Your task to perform on an android device: change the clock style Image 0: 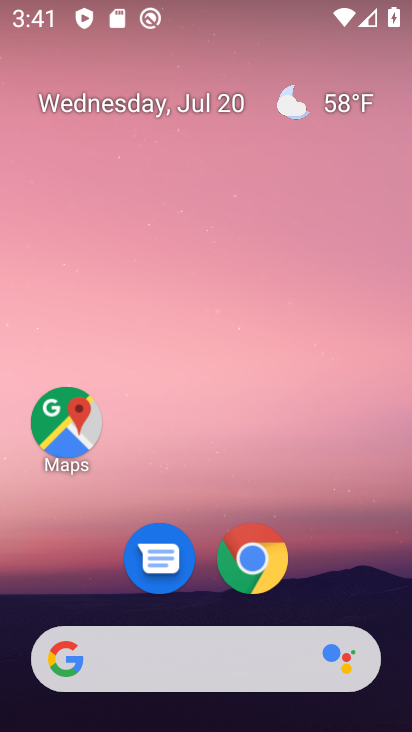
Step 0: drag from (88, 483) to (237, 86)
Your task to perform on an android device: change the clock style Image 1: 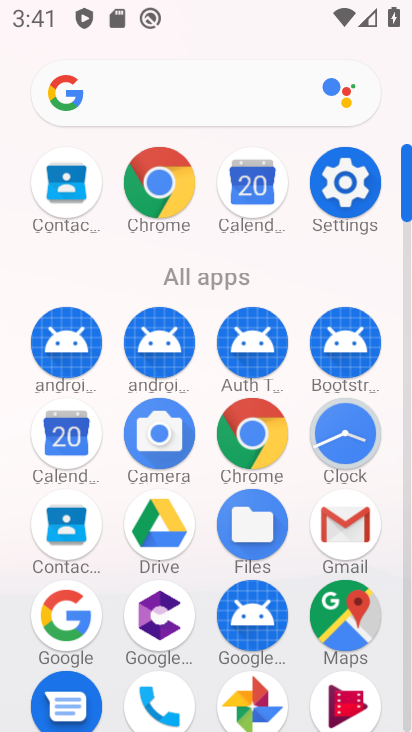
Step 1: click (342, 447)
Your task to perform on an android device: change the clock style Image 2: 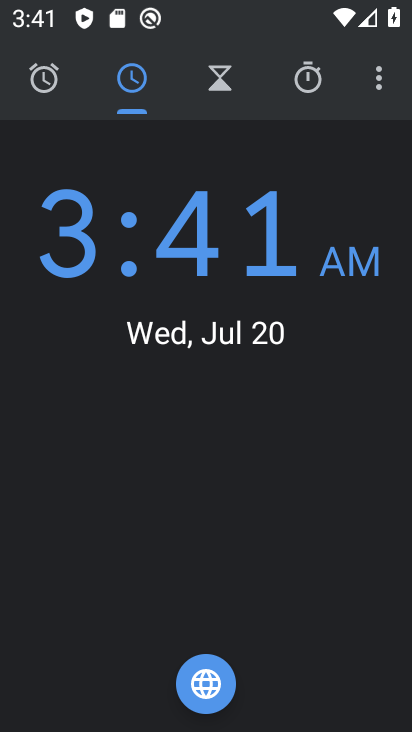
Step 2: click (382, 73)
Your task to perform on an android device: change the clock style Image 3: 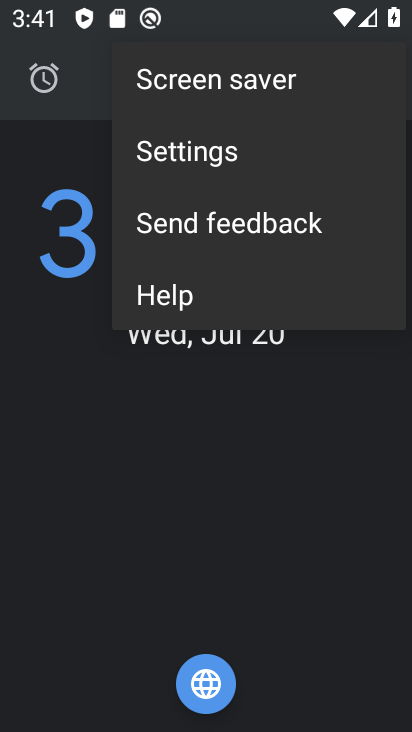
Step 3: click (238, 149)
Your task to perform on an android device: change the clock style Image 4: 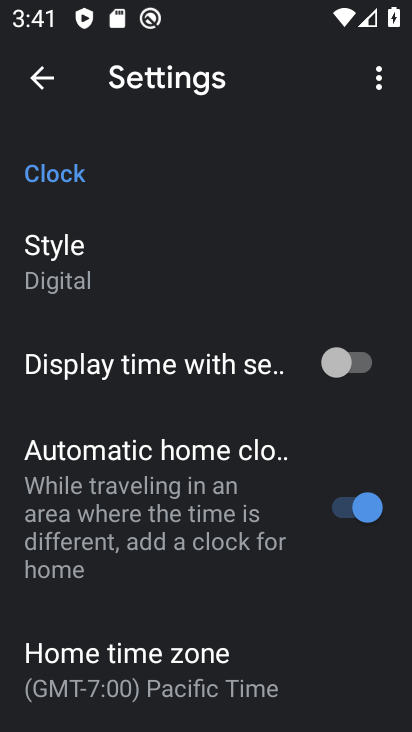
Step 4: click (117, 265)
Your task to perform on an android device: change the clock style Image 5: 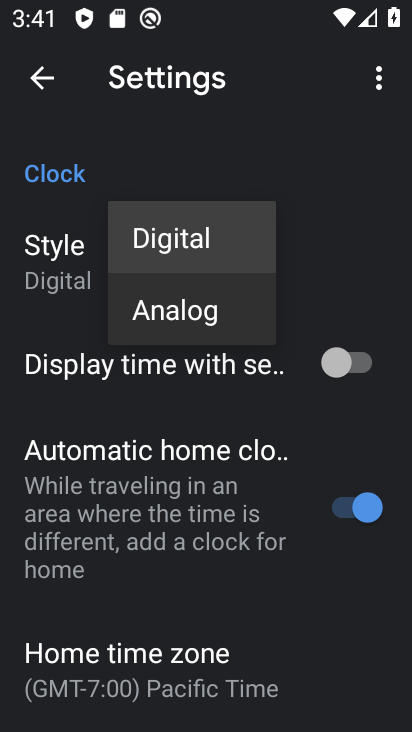
Step 5: click (159, 318)
Your task to perform on an android device: change the clock style Image 6: 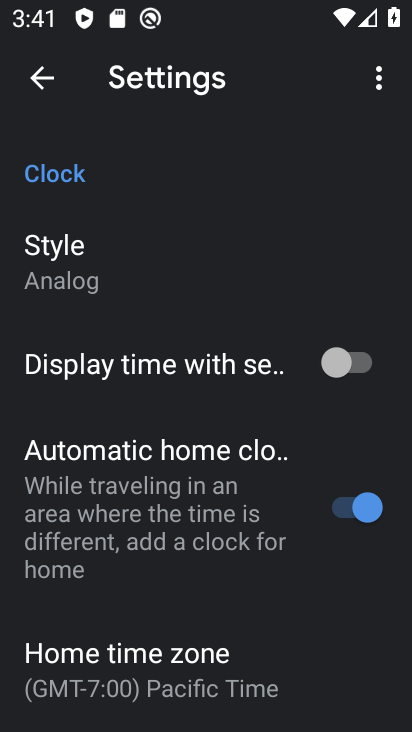
Step 6: task complete